Your task to perform on an android device: open chrome and create a bookmark for the current page Image 0: 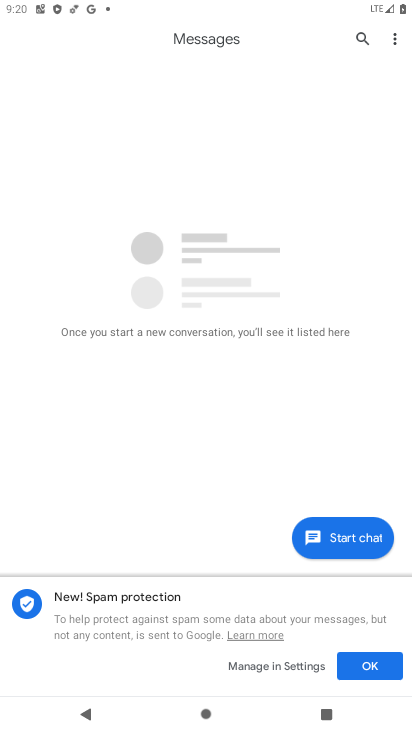
Step 0: press home button
Your task to perform on an android device: open chrome and create a bookmark for the current page Image 1: 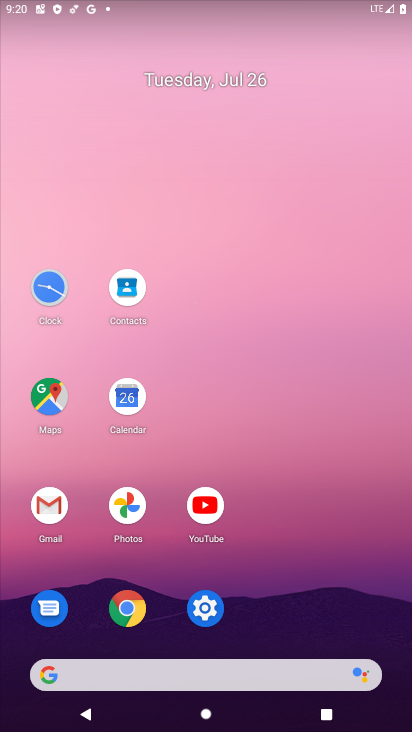
Step 1: click (128, 603)
Your task to perform on an android device: open chrome and create a bookmark for the current page Image 2: 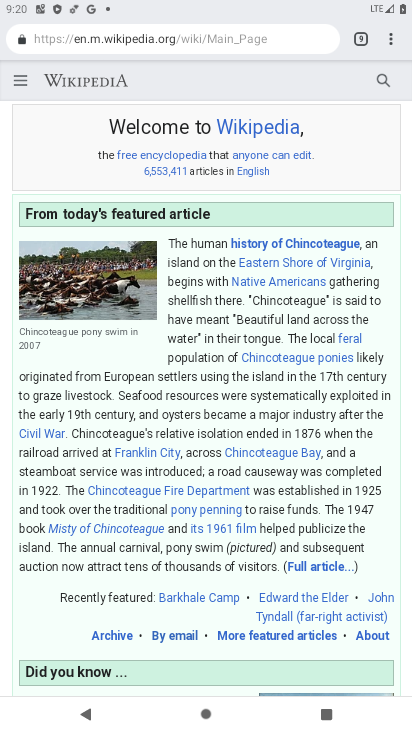
Step 2: click (392, 38)
Your task to perform on an android device: open chrome and create a bookmark for the current page Image 3: 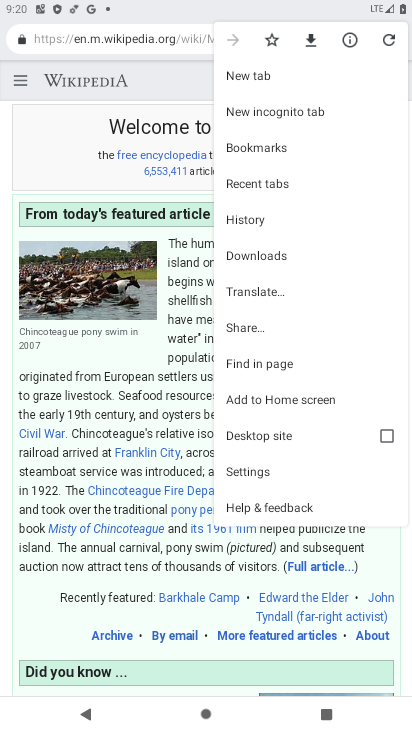
Step 3: click (272, 41)
Your task to perform on an android device: open chrome and create a bookmark for the current page Image 4: 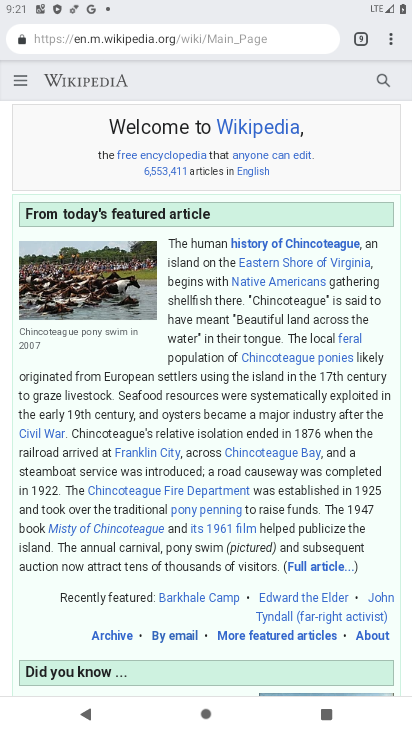
Step 4: task complete